Your task to perform on an android device: Go to Yahoo.com Image 0: 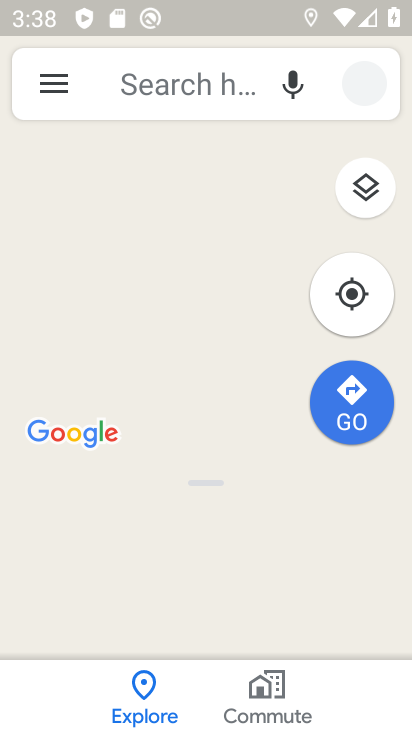
Step 0: press home button
Your task to perform on an android device: Go to Yahoo.com Image 1: 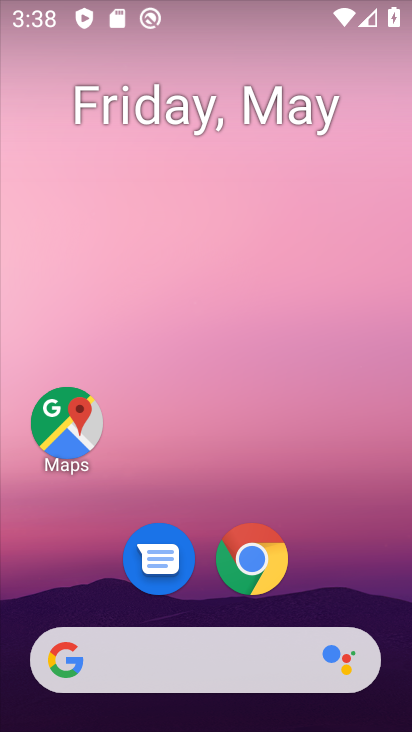
Step 1: click (252, 548)
Your task to perform on an android device: Go to Yahoo.com Image 2: 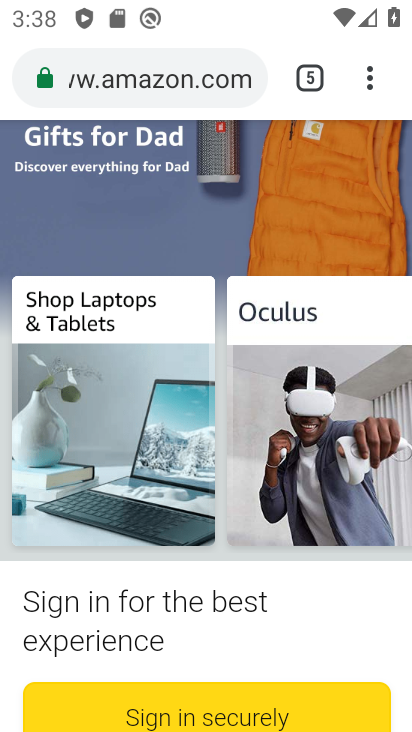
Step 2: click (309, 90)
Your task to perform on an android device: Go to Yahoo.com Image 3: 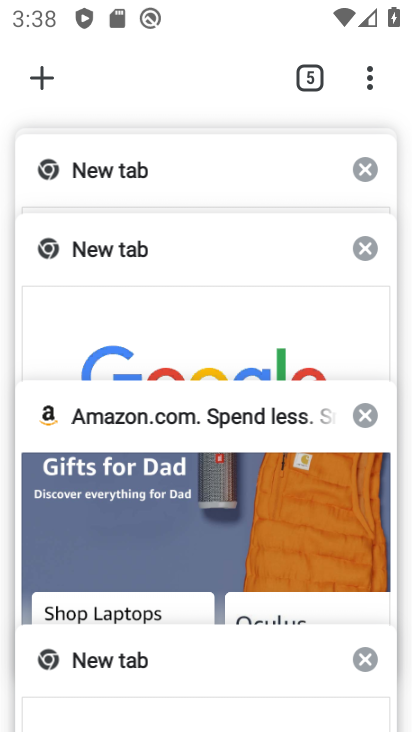
Step 3: drag from (211, 214) to (188, 534)
Your task to perform on an android device: Go to Yahoo.com Image 4: 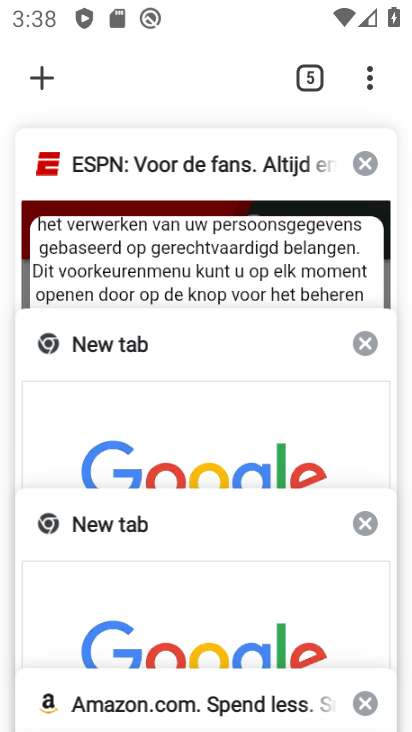
Step 4: drag from (249, 217) to (243, 606)
Your task to perform on an android device: Go to Yahoo.com Image 5: 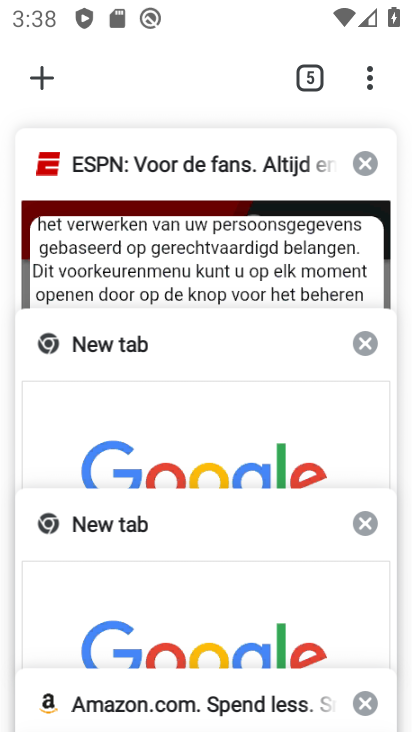
Step 5: drag from (273, 512) to (320, 127)
Your task to perform on an android device: Go to Yahoo.com Image 6: 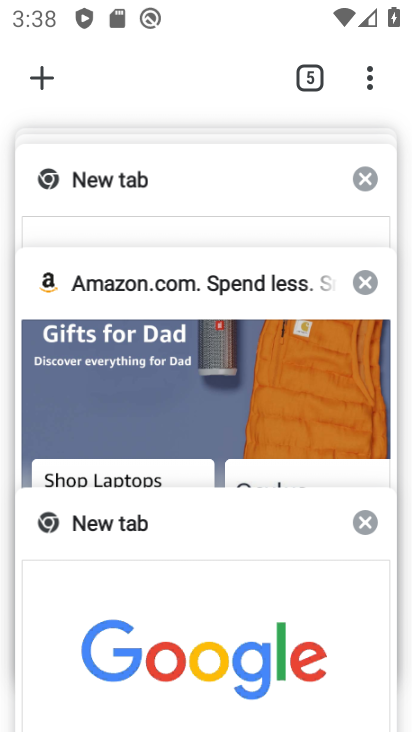
Step 6: drag from (157, 505) to (262, 83)
Your task to perform on an android device: Go to Yahoo.com Image 7: 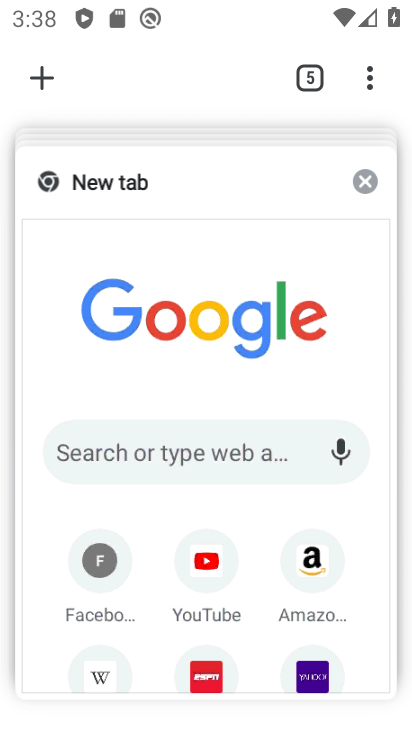
Step 7: drag from (179, 560) to (302, 42)
Your task to perform on an android device: Go to Yahoo.com Image 8: 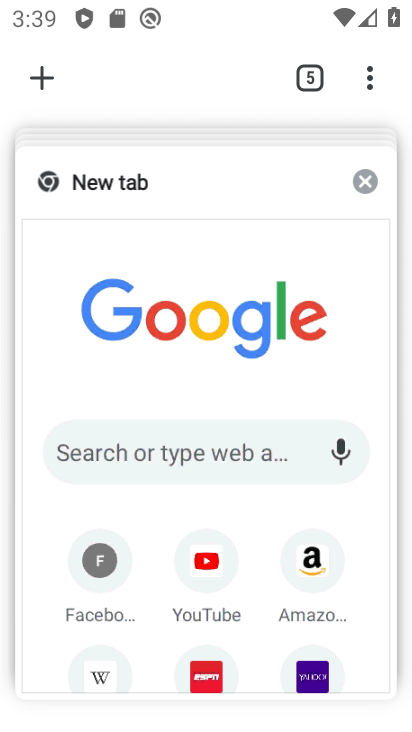
Step 8: click (227, 337)
Your task to perform on an android device: Go to Yahoo.com Image 9: 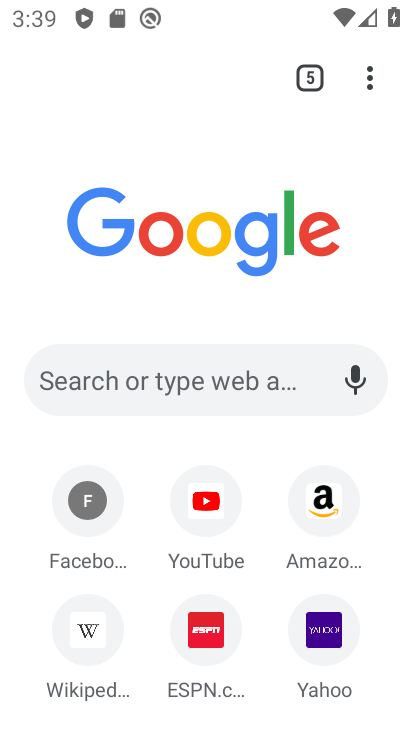
Step 9: click (322, 640)
Your task to perform on an android device: Go to Yahoo.com Image 10: 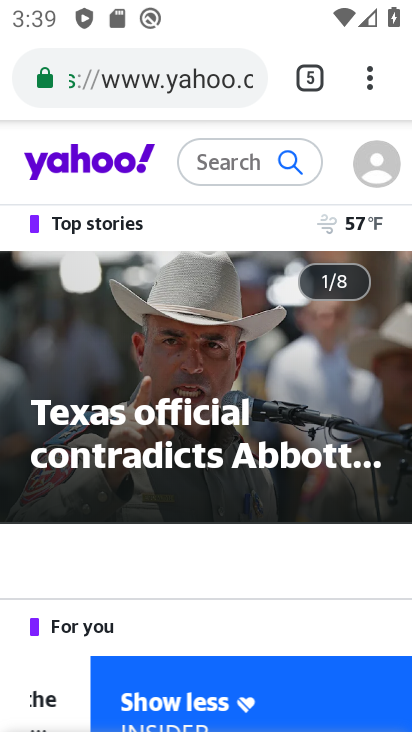
Step 10: task complete